Your task to perform on an android device: find which apps use the phone's location Image 0: 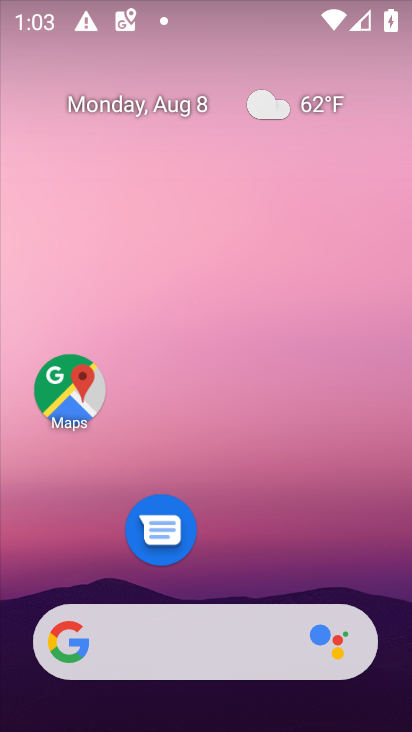
Step 0: drag from (226, 588) to (232, 117)
Your task to perform on an android device: find which apps use the phone's location Image 1: 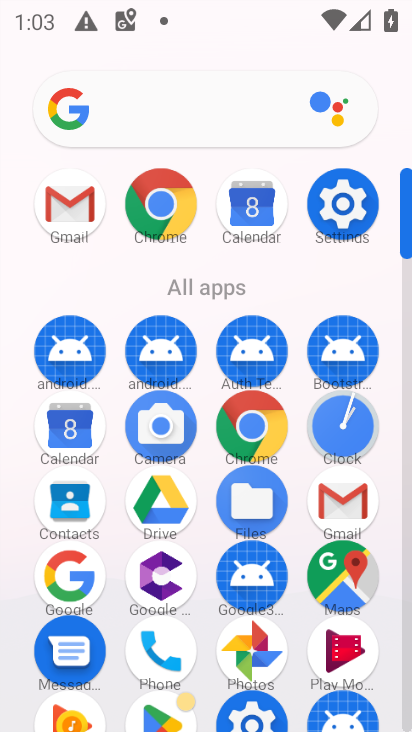
Step 1: click (353, 198)
Your task to perform on an android device: find which apps use the phone's location Image 2: 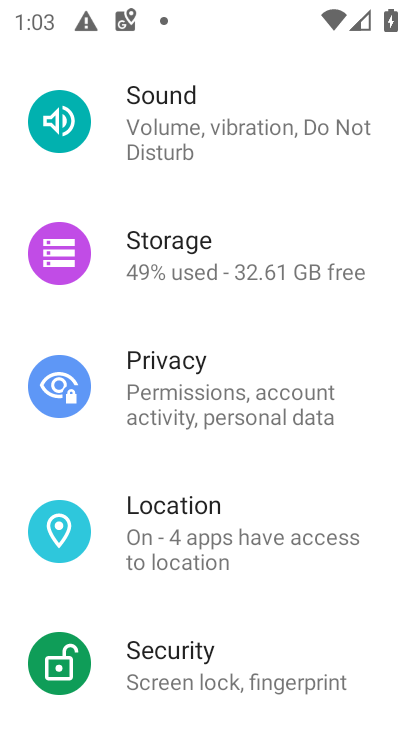
Step 2: click (164, 523)
Your task to perform on an android device: find which apps use the phone's location Image 3: 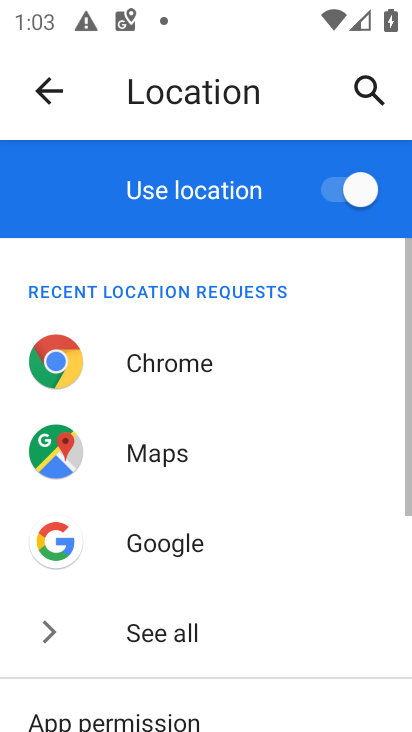
Step 3: drag from (189, 691) to (156, 461)
Your task to perform on an android device: find which apps use the phone's location Image 4: 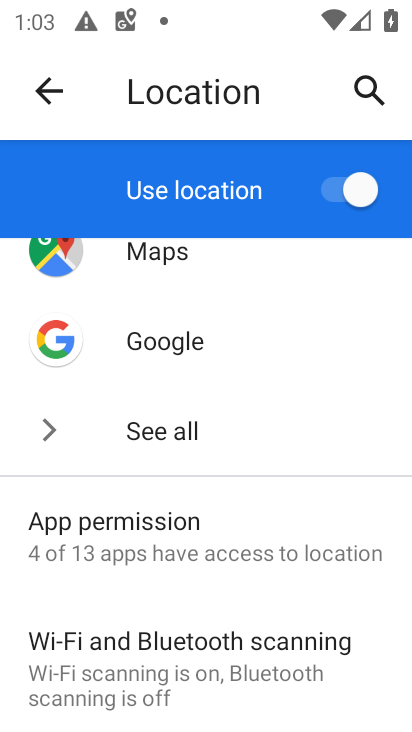
Step 4: click (151, 556)
Your task to perform on an android device: find which apps use the phone's location Image 5: 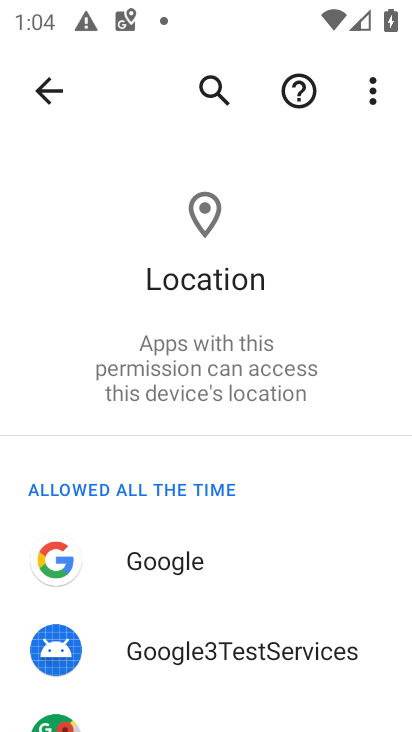
Step 5: task complete